Your task to perform on an android device: Open Google Maps Image 0: 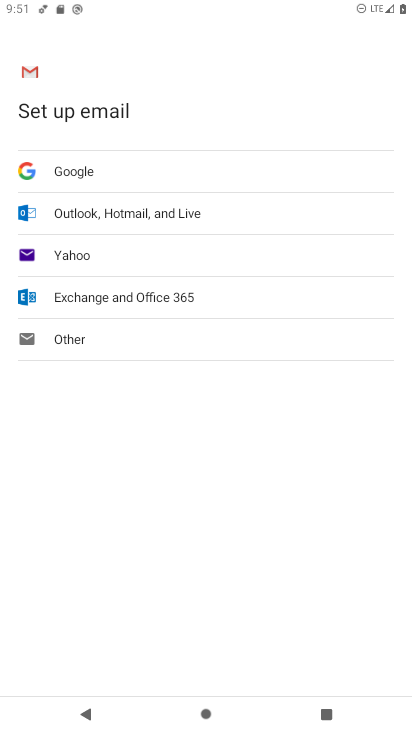
Step 0: press home button
Your task to perform on an android device: Open Google Maps Image 1: 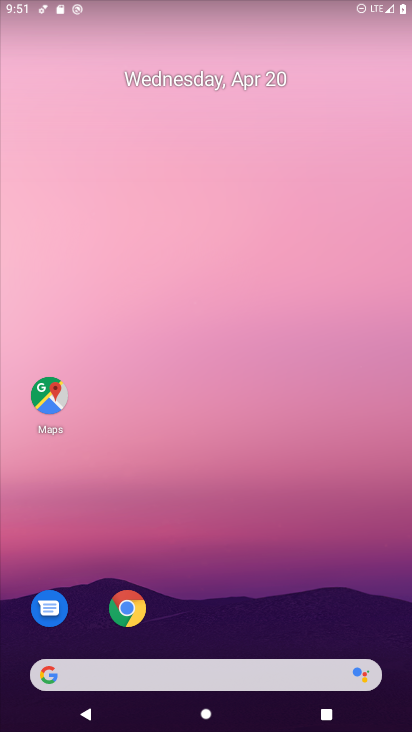
Step 1: click (43, 400)
Your task to perform on an android device: Open Google Maps Image 2: 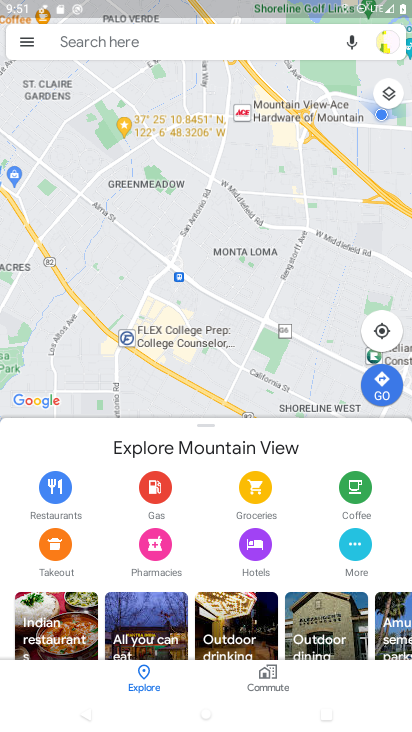
Step 2: task complete